Your task to perform on an android device: turn off airplane mode Image 0: 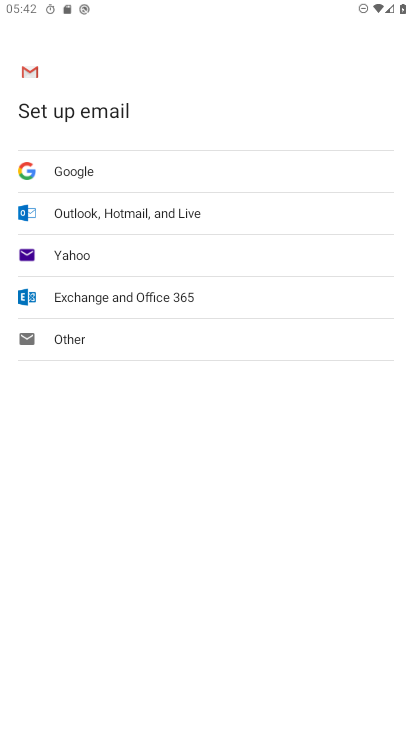
Step 0: press home button
Your task to perform on an android device: turn off airplane mode Image 1: 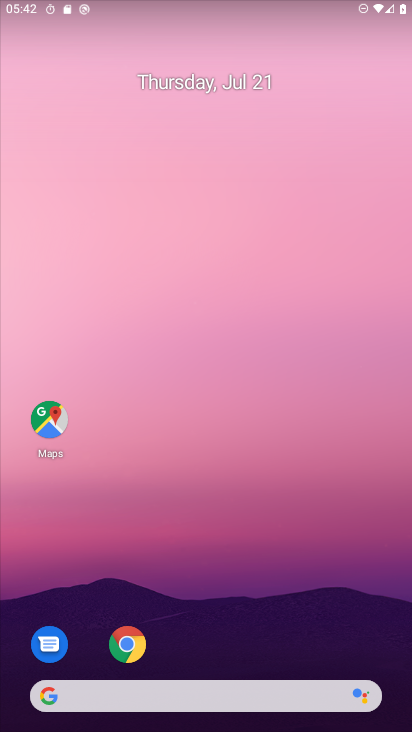
Step 1: drag from (176, 652) to (234, 182)
Your task to perform on an android device: turn off airplane mode Image 2: 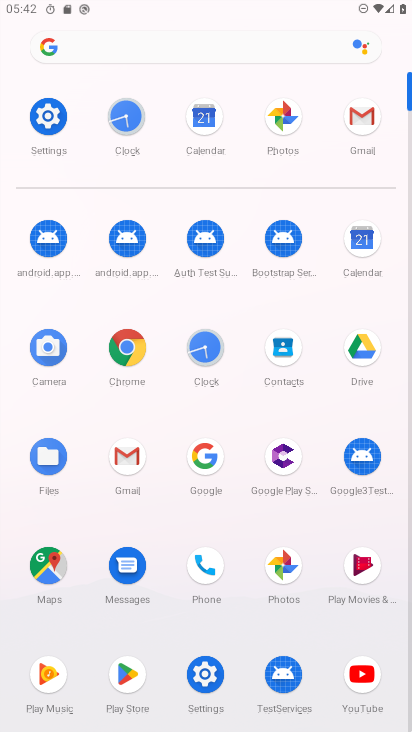
Step 2: click (41, 125)
Your task to perform on an android device: turn off airplane mode Image 3: 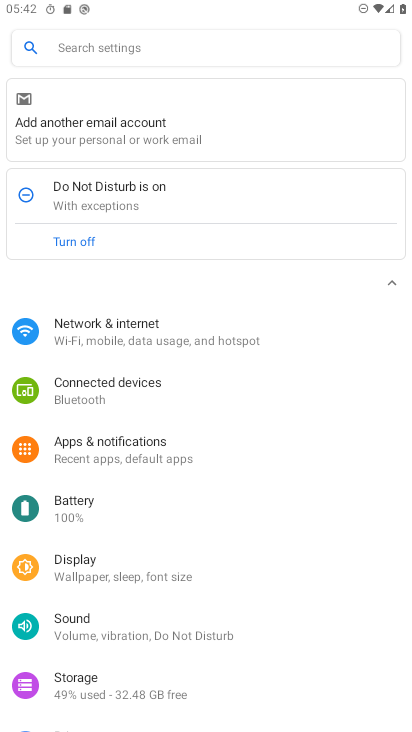
Step 3: click (100, 336)
Your task to perform on an android device: turn off airplane mode Image 4: 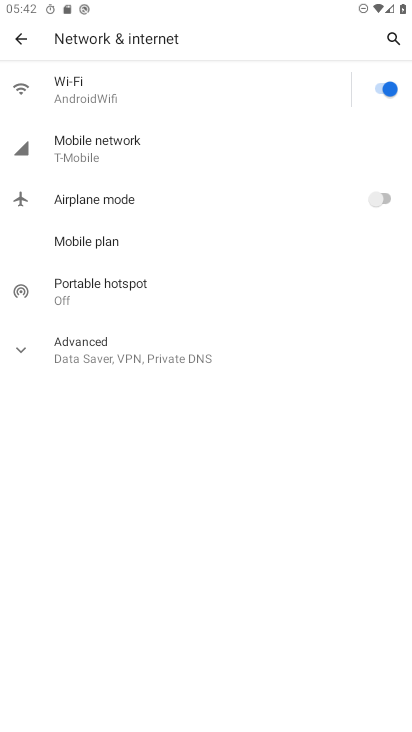
Step 4: task complete